Your task to perform on an android device: What is the news today? Image 0: 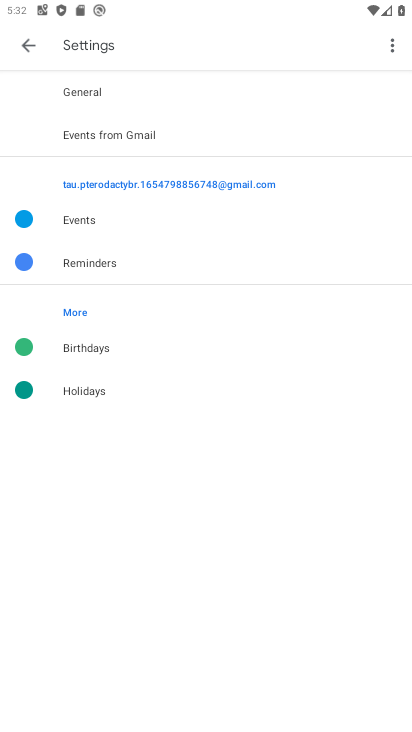
Step 0: press home button
Your task to perform on an android device: What is the news today? Image 1: 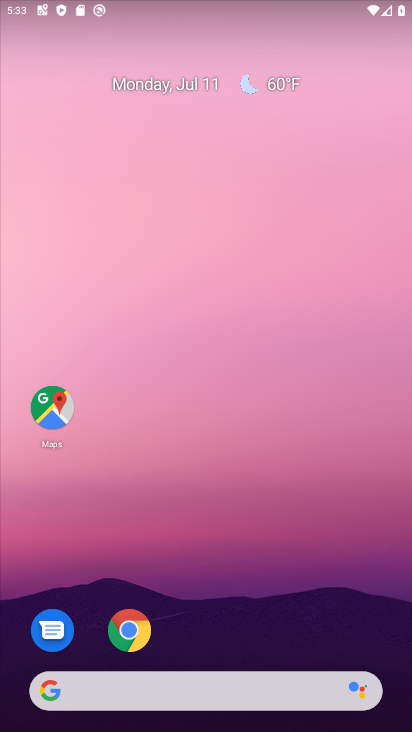
Step 1: drag from (182, 418) to (184, 236)
Your task to perform on an android device: What is the news today? Image 2: 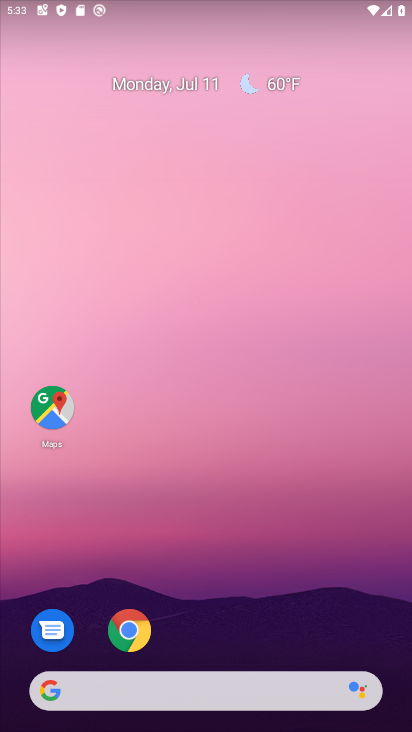
Step 2: drag from (194, 613) to (177, 26)
Your task to perform on an android device: What is the news today? Image 3: 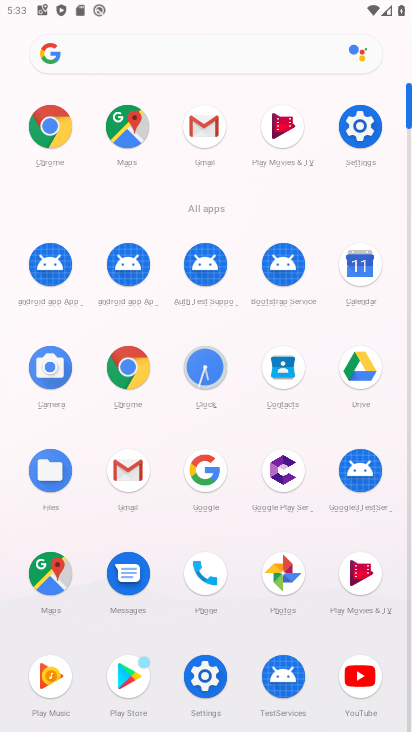
Step 3: click (205, 472)
Your task to perform on an android device: What is the news today? Image 4: 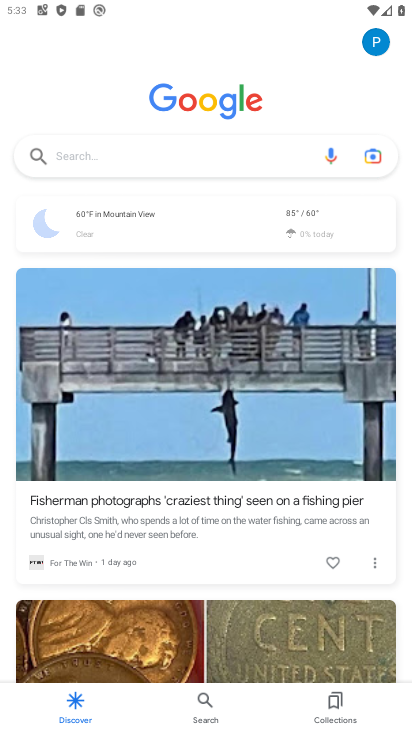
Step 4: click (134, 151)
Your task to perform on an android device: What is the news today? Image 5: 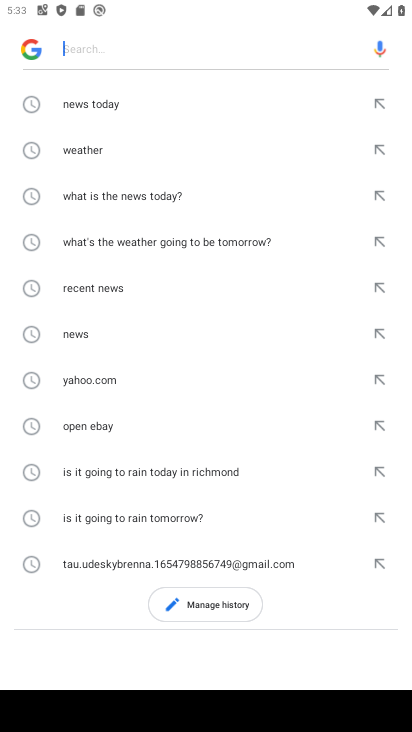
Step 5: click (112, 100)
Your task to perform on an android device: What is the news today? Image 6: 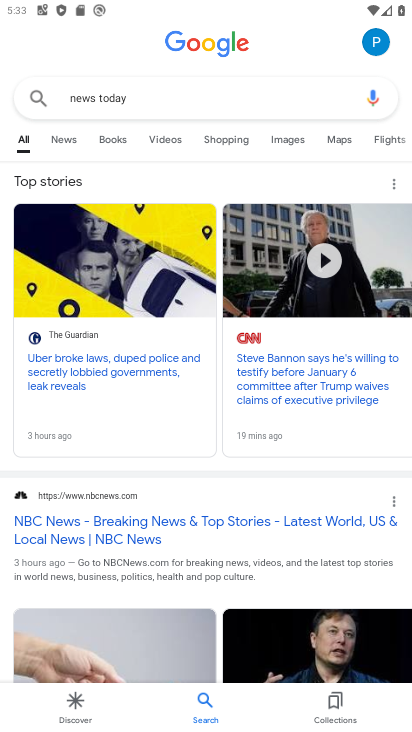
Step 6: task complete